Your task to perform on an android device: Check the weather Image 0: 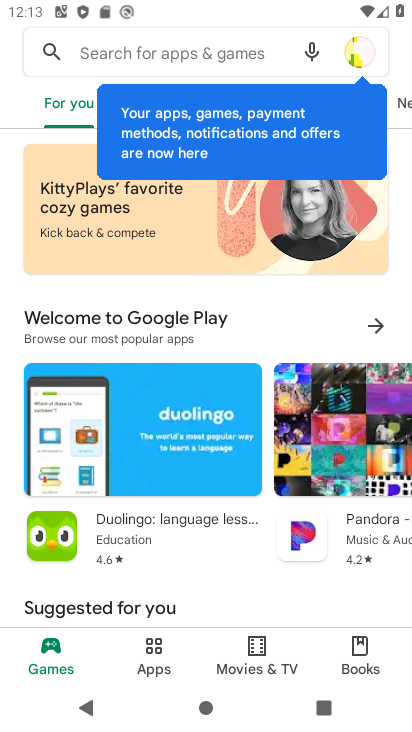
Step 0: press home button
Your task to perform on an android device: Check the weather Image 1: 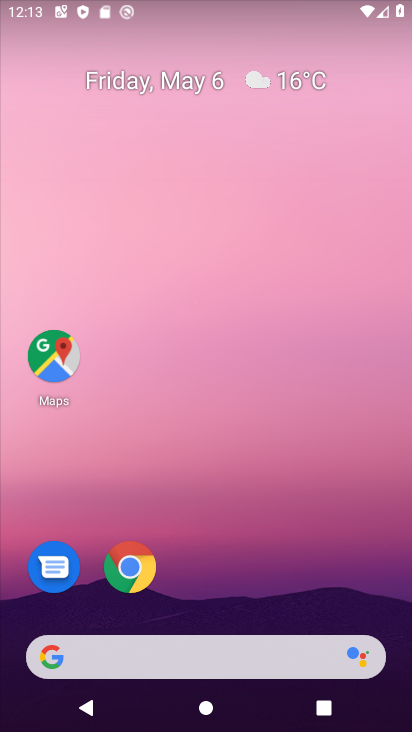
Step 1: click (279, 102)
Your task to perform on an android device: Check the weather Image 2: 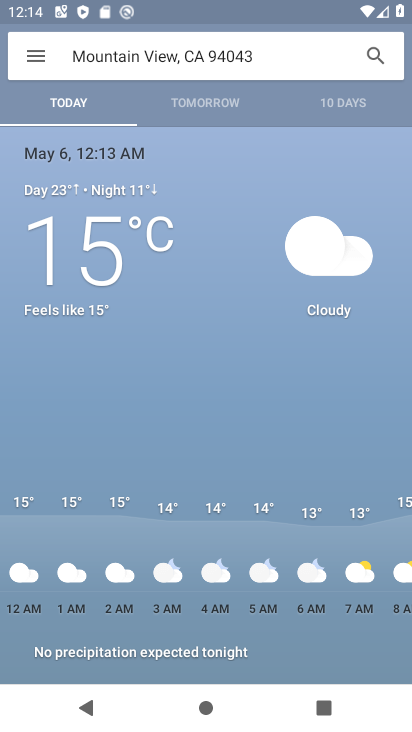
Step 2: task complete